Your task to perform on an android device: Search for the Nintendo Switch. Image 0: 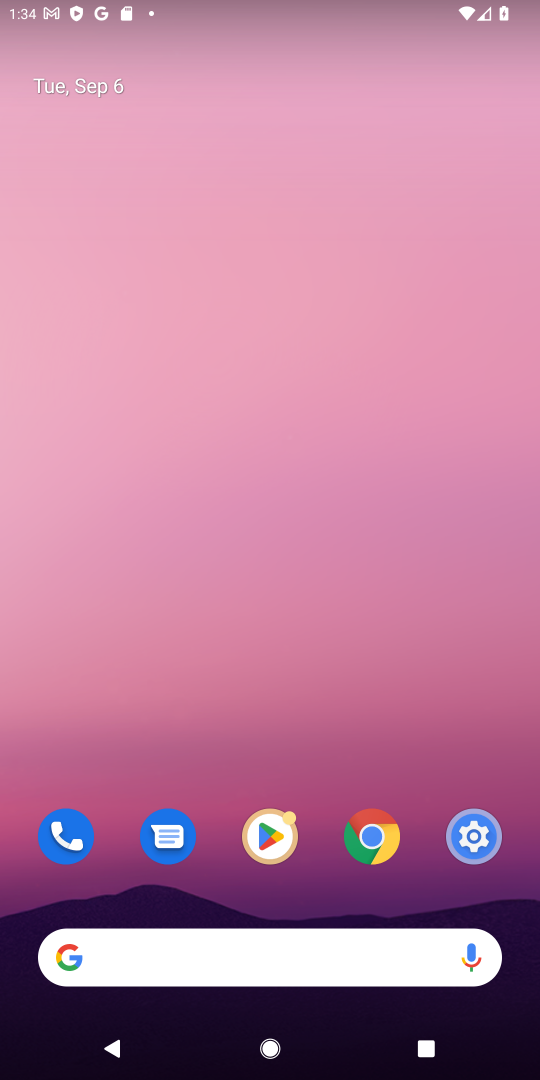
Step 0: click (394, 568)
Your task to perform on an android device: Search for the Nintendo Switch. Image 1: 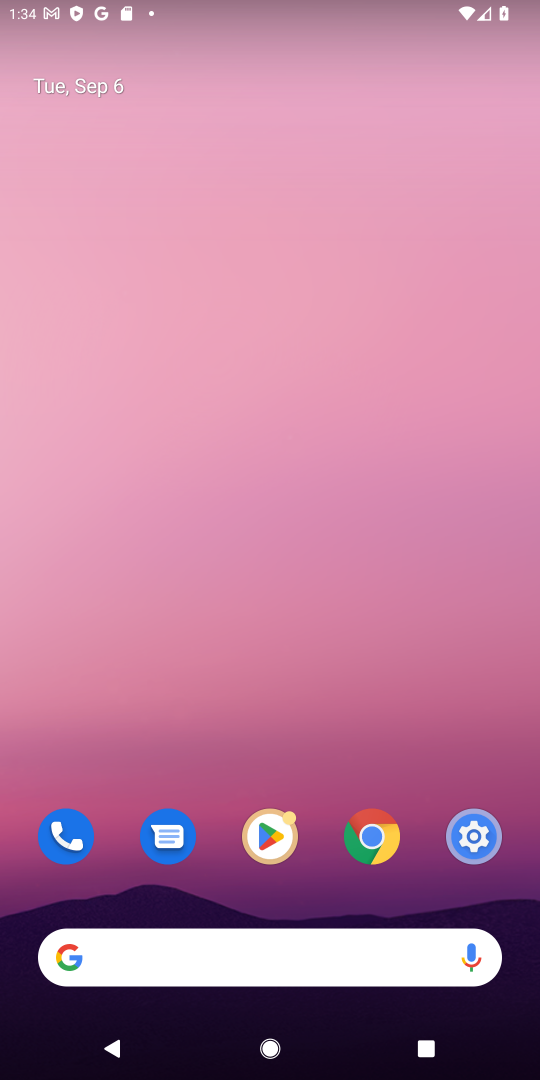
Step 1: click (225, 948)
Your task to perform on an android device: Search for the Nintendo Switch. Image 2: 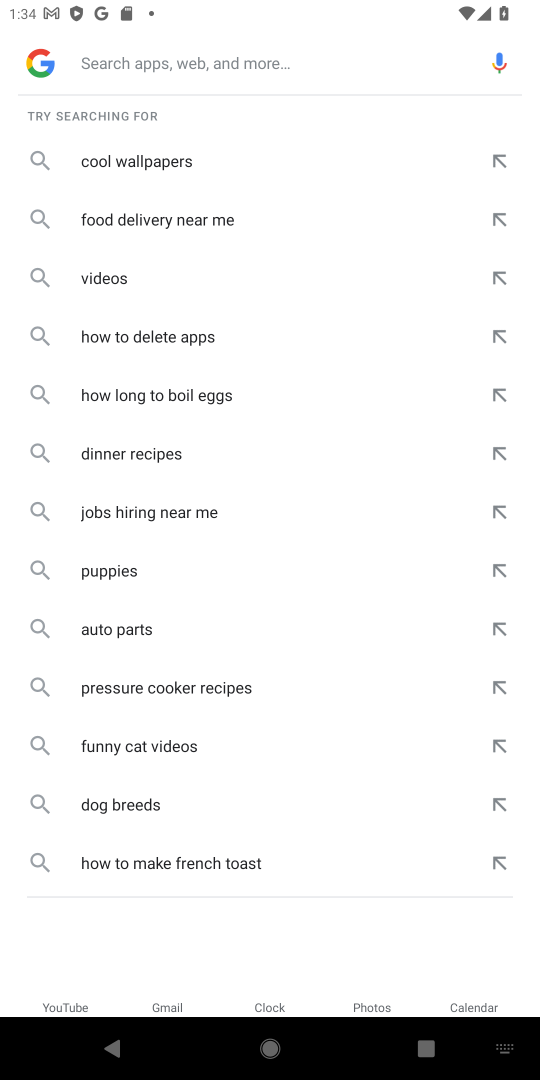
Step 2: type "nintendo switch"
Your task to perform on an android device: Search for the Nintendo Switch. Image 3: 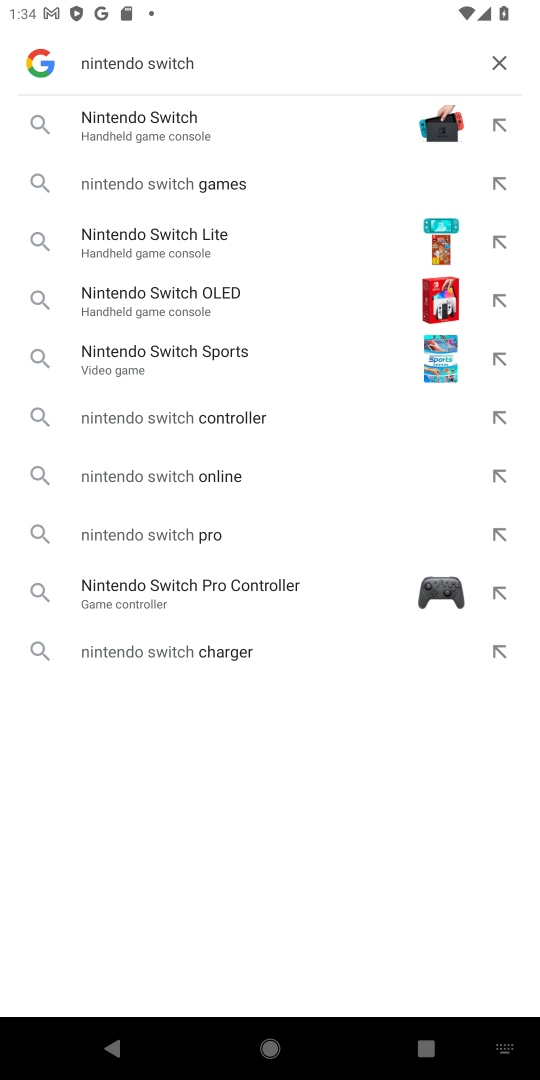
Step 3: click (163, 121)
Your task to perform on an android device: Search for the Nintendo Switch. Image 4: 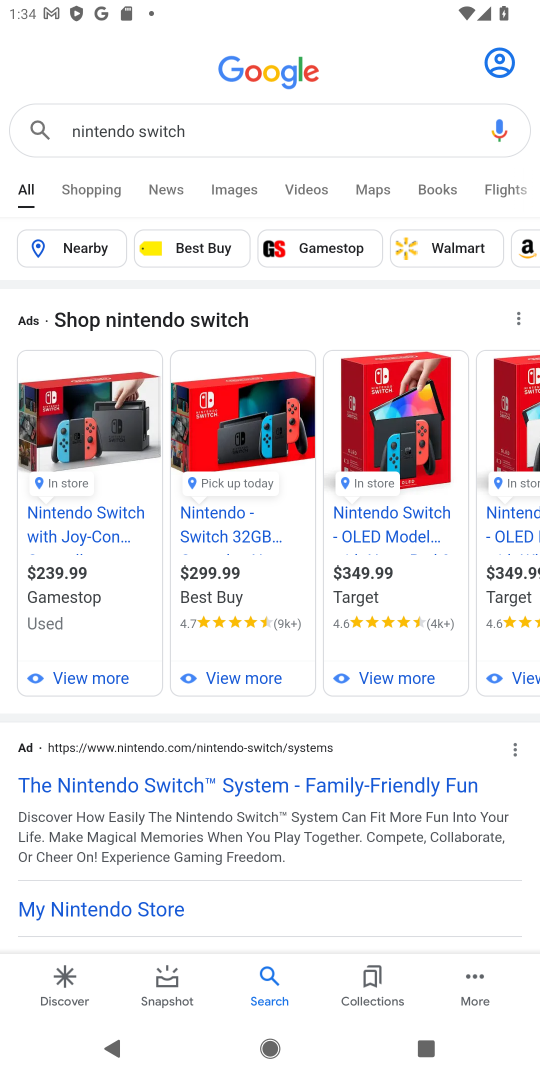
Step 4: task complete